Your task to perform on an android device: Go to Amazon Image 0: 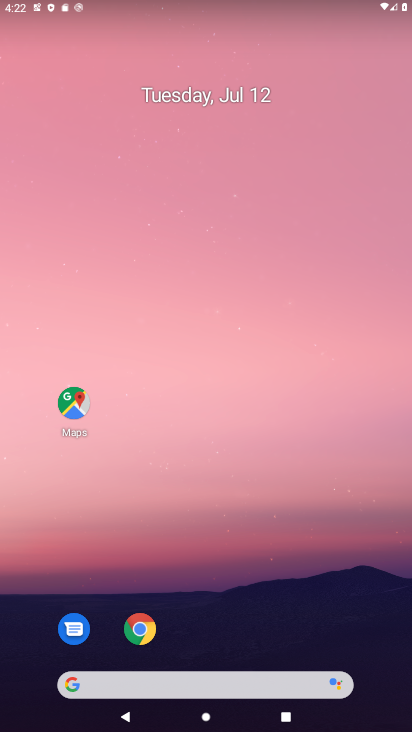
Step 0: press home button
Your task to perform on an android device: Go to Amazon Image 1: 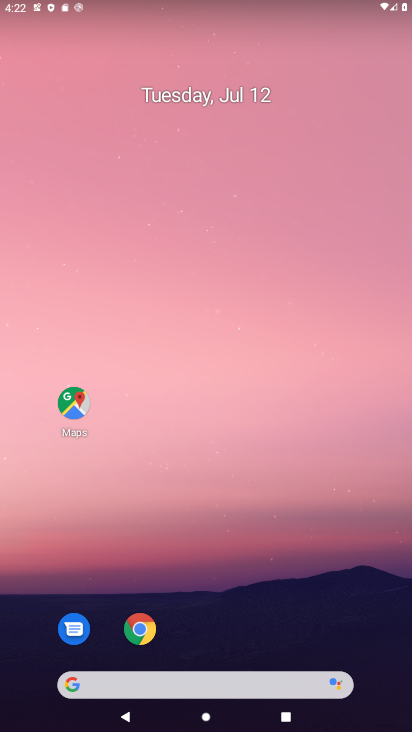
Step 1: click (70, 683)
Your task to perform on an android device: Go to Amazon Image 2: 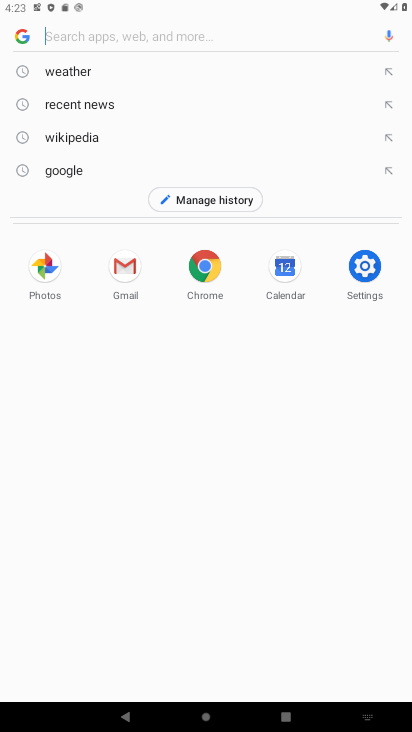
Step 2: type "Amazon"
Your task to perform on an android device: Go to Amazon Image 3: 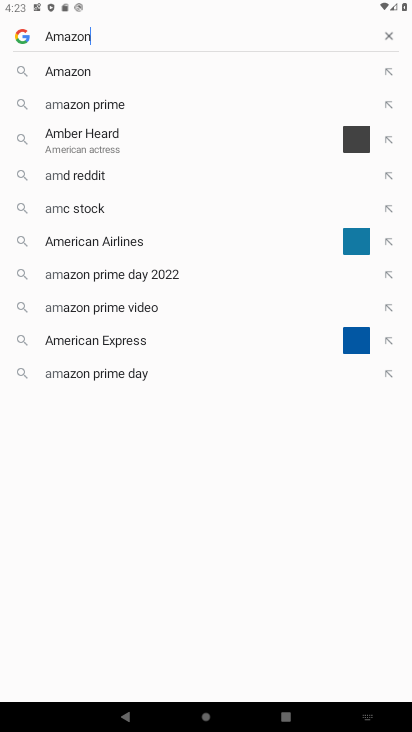
Step 3: press enter
Your task to perform on an android device: Go to Amazon Image 4: 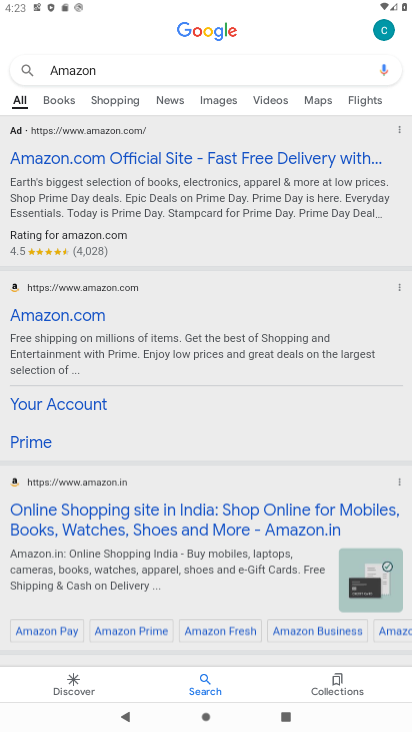
Step 4: click (77, 160)
Your task to perform on an android device: Go to Amazon Image 5: 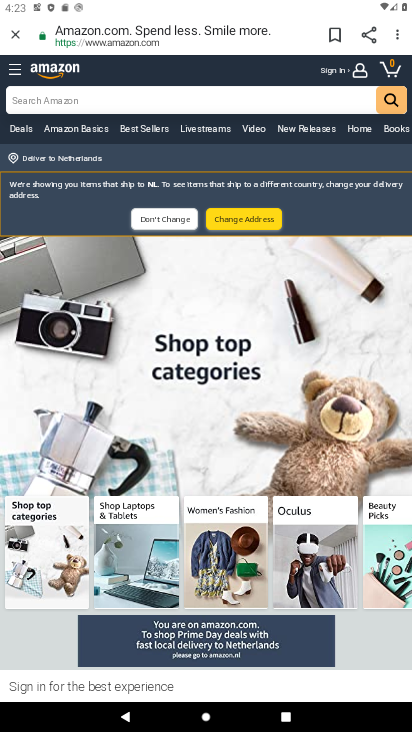
Step 5: task complete